Your task to perform on an android device: Open Maps and search for coffee Image 0: 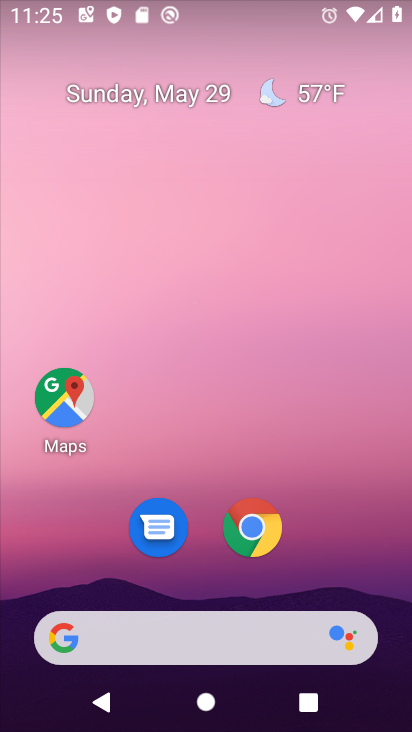
Step 0: click (58, 395)
Your task to perform on an android device: Open Maps and search for coffee Image 1: 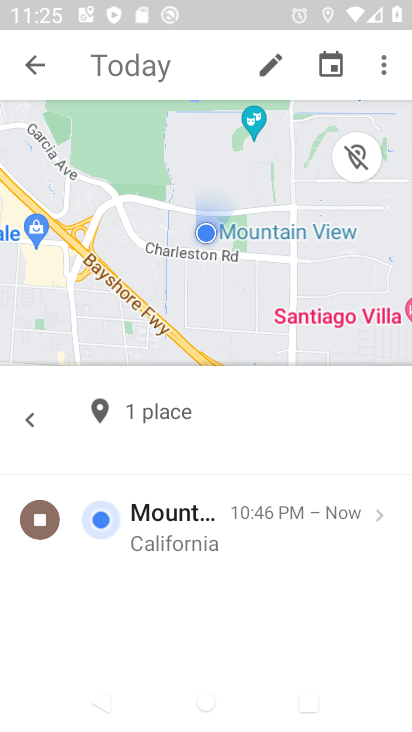
Step 1: click (43, 61)
Your task to perform on an android device: Open Maps and search for coffee Image 2: 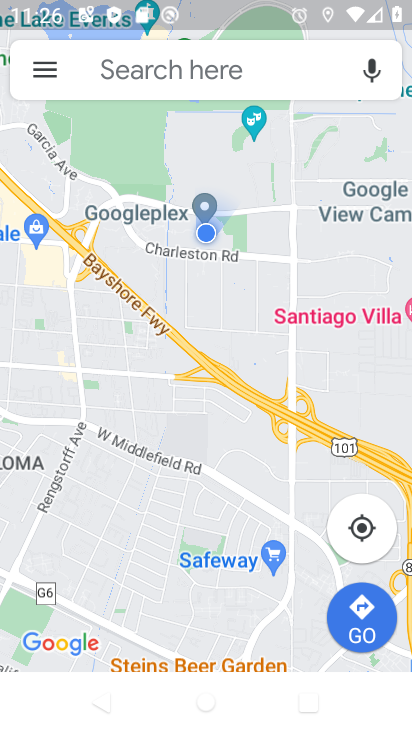
Step 2: click (162, 71)
Your task to perform on an android device: Open Maps and search for coffee Image 3: 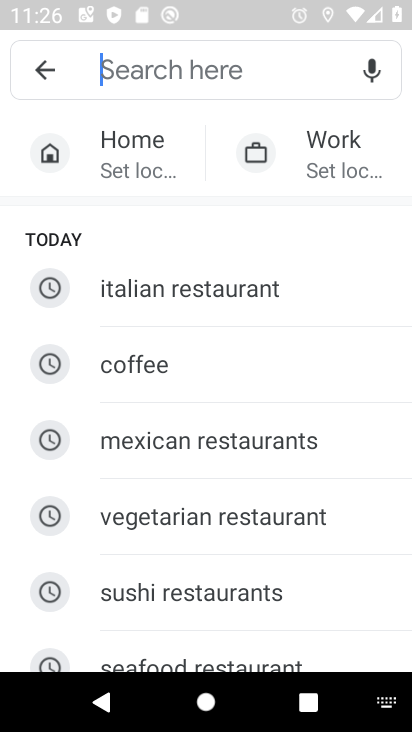
Step 3: click (145, 355)
Your task to perform on an android device: Open Maps and search for coffee Image 4: 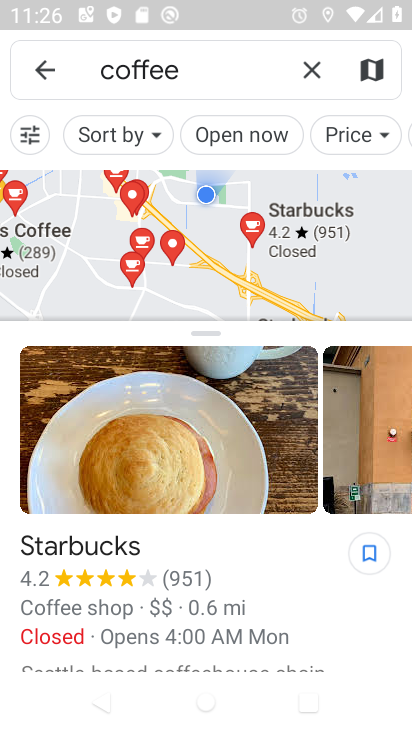
Step 4: task complete